Your task to perform on an android device: Open Google Maps Image 0: 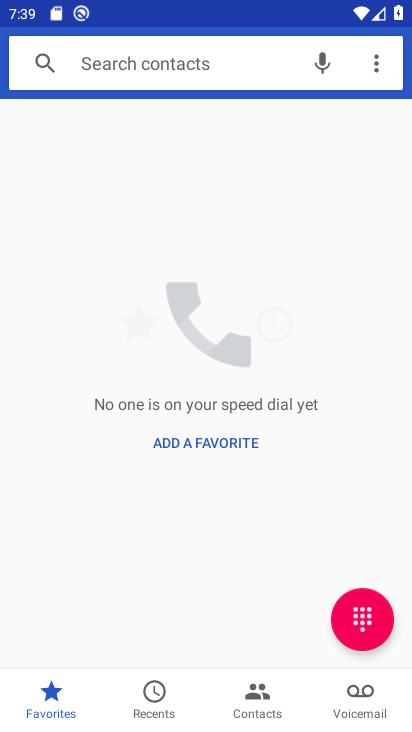
Step 0: press home button
Your task to perform on an android device: Open Google Maps Image 1: 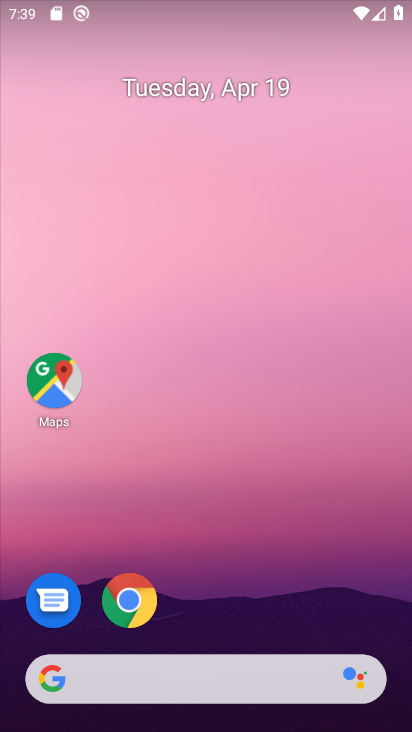
Step 1: drag from (371, 613) to (381, 105)
Your task to perform on an android device: Open Google Maps Image 2: 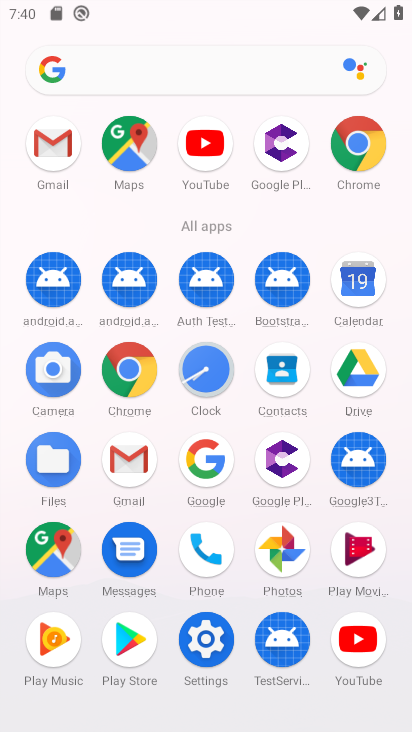
Step 2: click (65, 561)
Your task to perform on an android device: Open Google Maps Image 3: 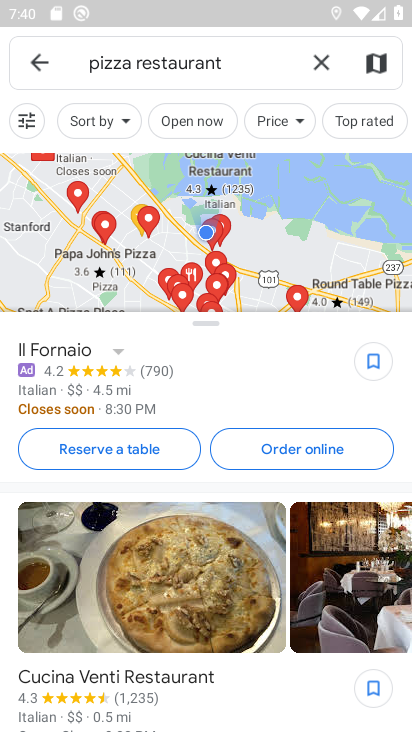
Step 3: task complete